Your task to perform on an android device: Open Wikipedia Image 0: 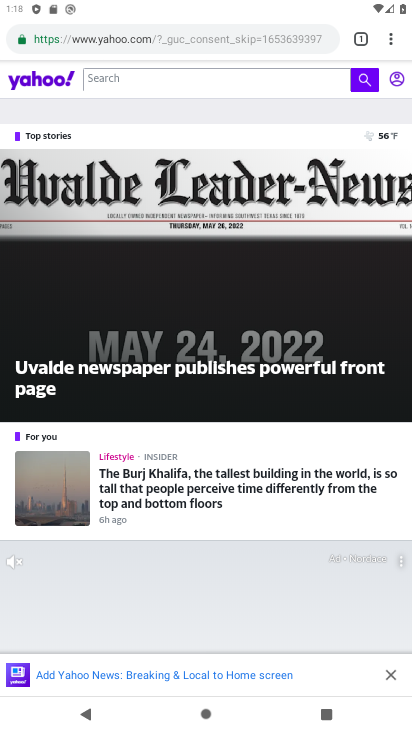
Step 0: click (198, 37)
Your task to perform on an android device: Open Wikipedia Image 1: 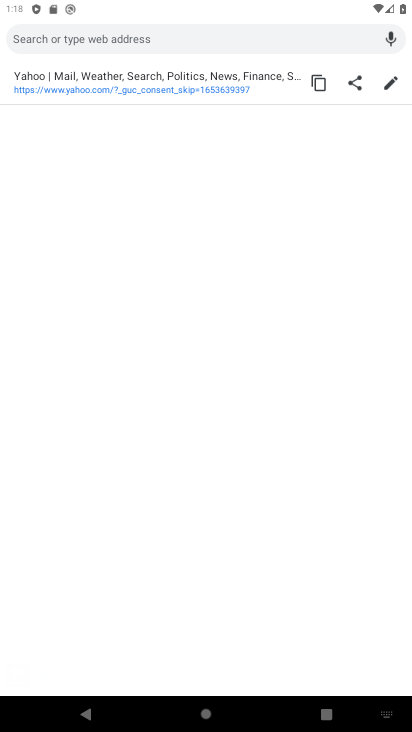
Step 1: type "wikipedia"
Your task to perform on an android device: Open Wikipedia Image 2: 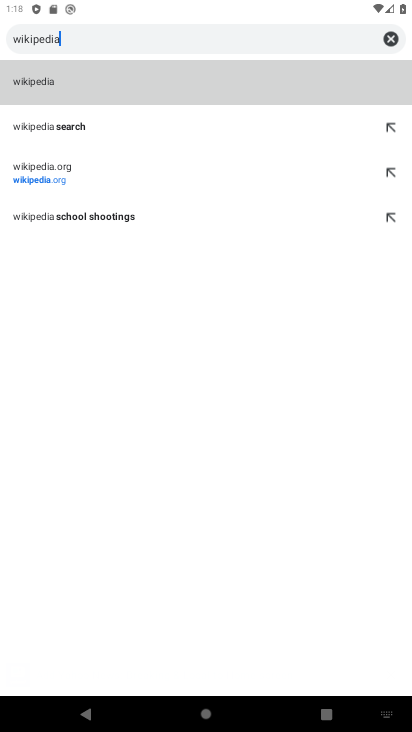
Step 2: click (81, 82)
Your task to perform on an android device: Open Wikipedia Image 3: 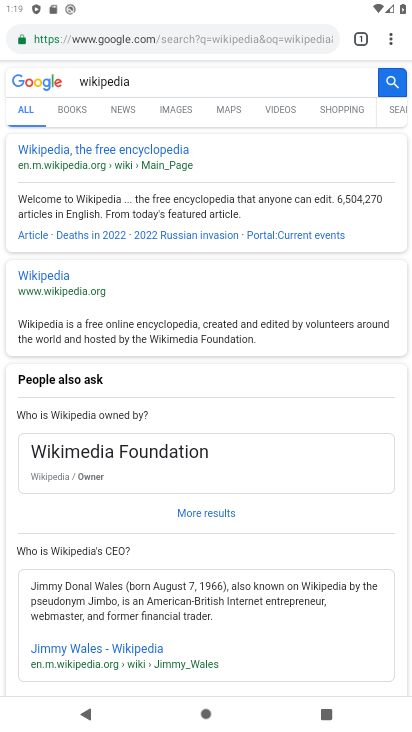
Step 3: click (58, 277)
Your task to perform on an android device: Open Wikipedia Image 4: 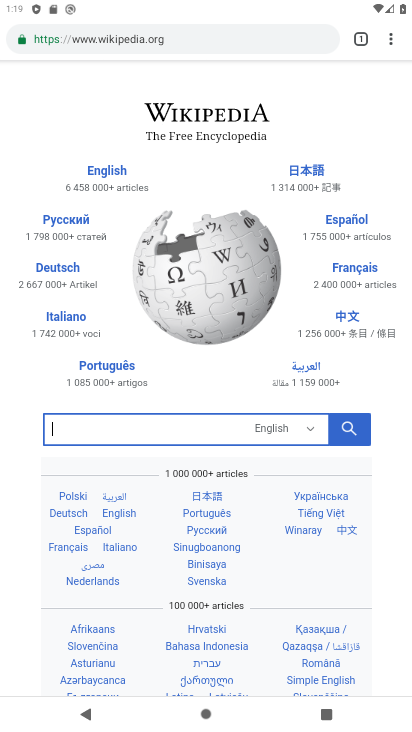
Step 4: task complete